Your task to perform on an android device: turn on sleep mode Image 0: 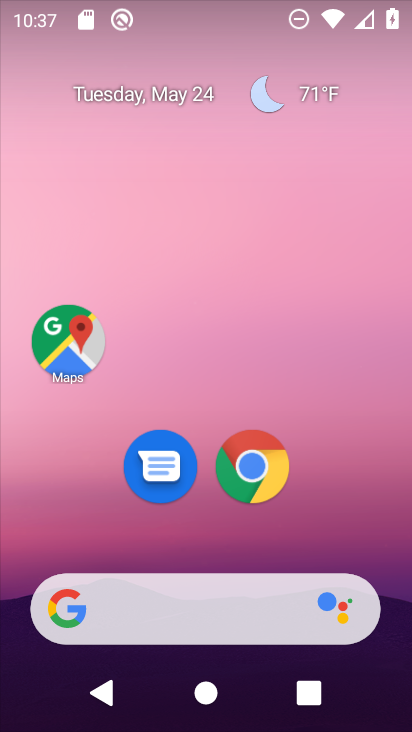
Step 0: drag from (246, 515) to (230, 2)
Your task to perform on an android device: turn on sleep mode Image 1: 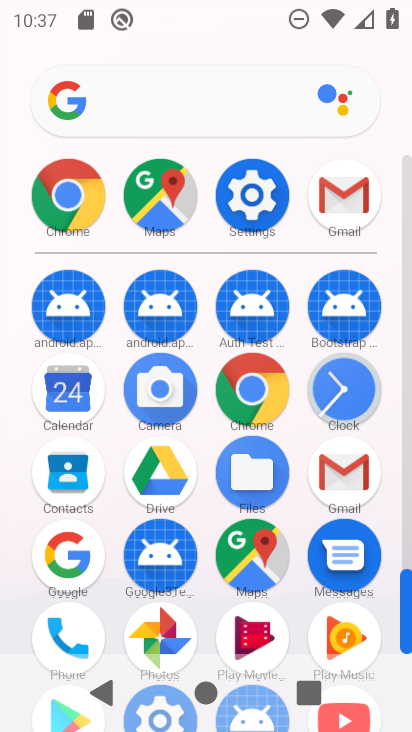
Step 1: click (256, 202)
Your task to perform on an android device: turn on sleep mode Image 2: 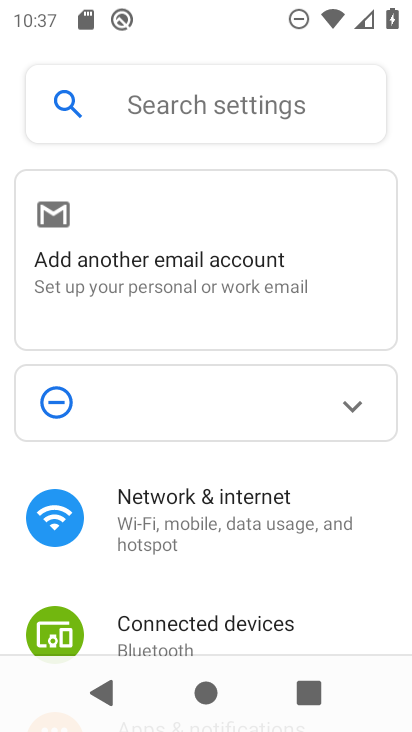
Step 2: click (222, 106)
Your task to perform on an android device: turn on sleep mode Image 3: 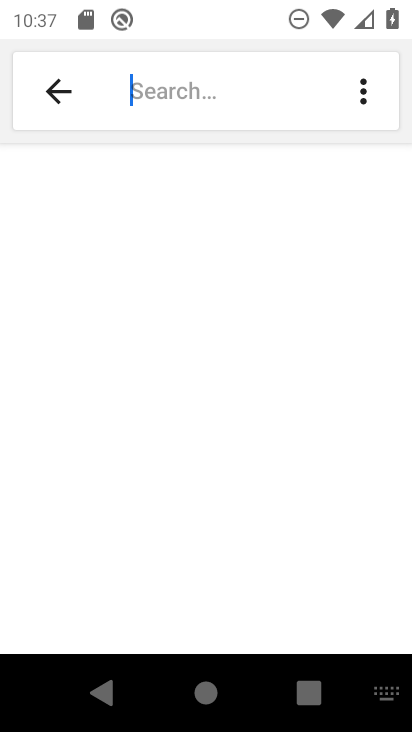
Step 3: type "sleep mode"
Your task to perform on an android device: turn on sleep mode Image 4: 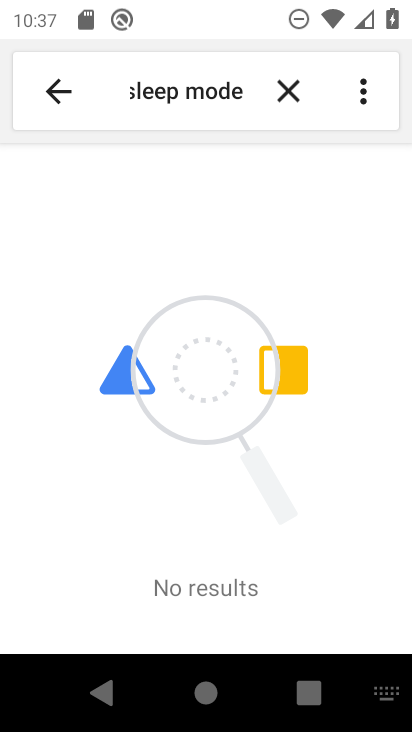
Step 4: task complete